Your task to perform on an android device: Search for seafood restaurants on Google Maps Image 0: 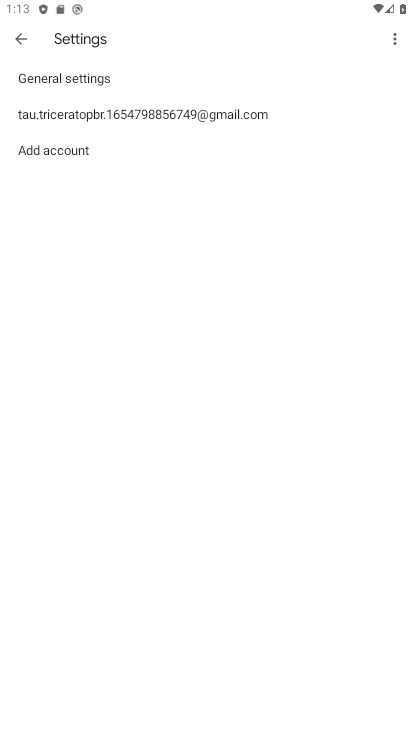
Step 0: press home button
Your task to perform on an android device: Search for seafood restaurants on Google Maps Image 1: 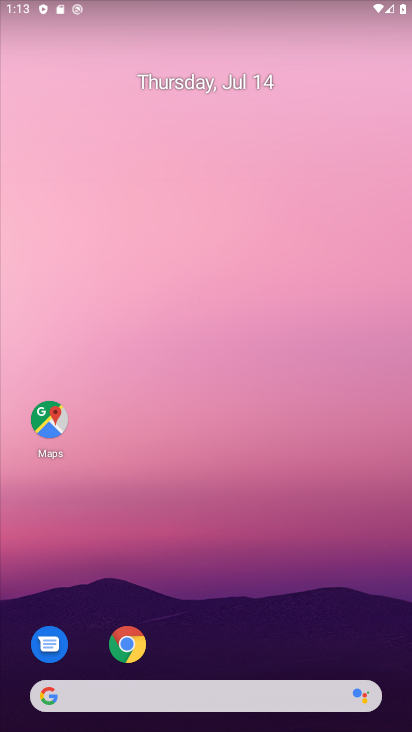
Step 1: drag from (206, 691) to (297, 207)
Your task to perform on an android device: Search for seafood restaurants on Google Maps Image 2: 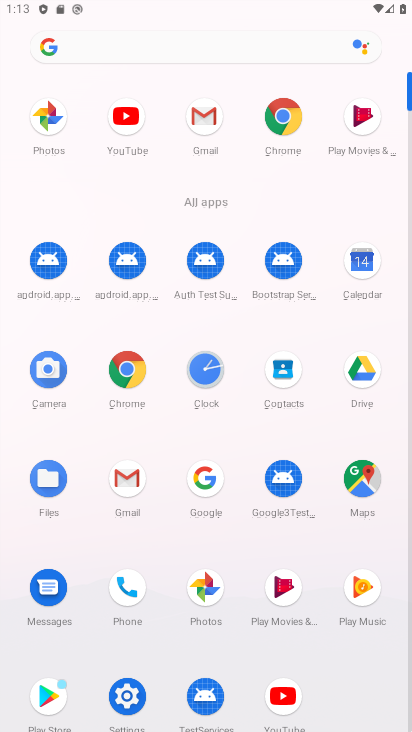
Step 2: click (359, 482)
Your task to perform on an android device: Search for seafood restaurants on Google Maps Image 3: 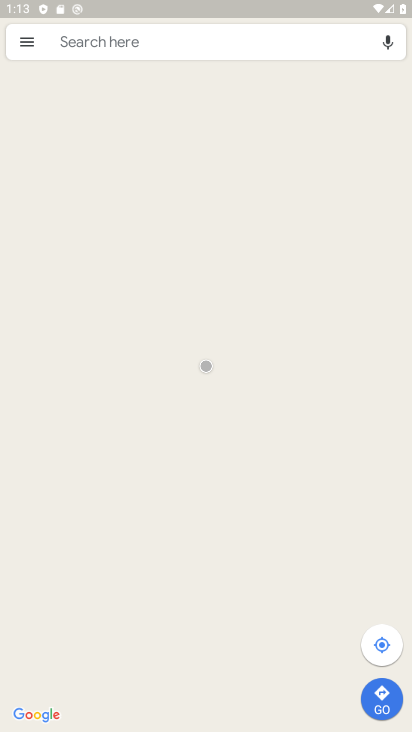
Step 3: click (151, 47)
Your task to perform on an android device: Search for seafood restaurants on Google Maps Image 4: 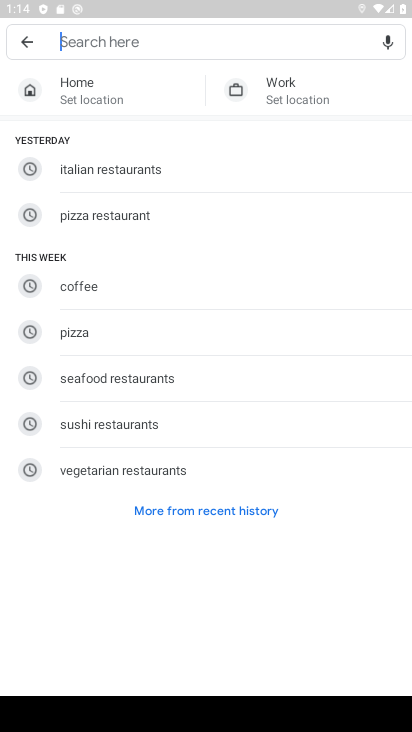
Step 4: type "seafood restaurants"
Your task to perform on an android device: Search for seafood restaurants on Google Maps Image 5: 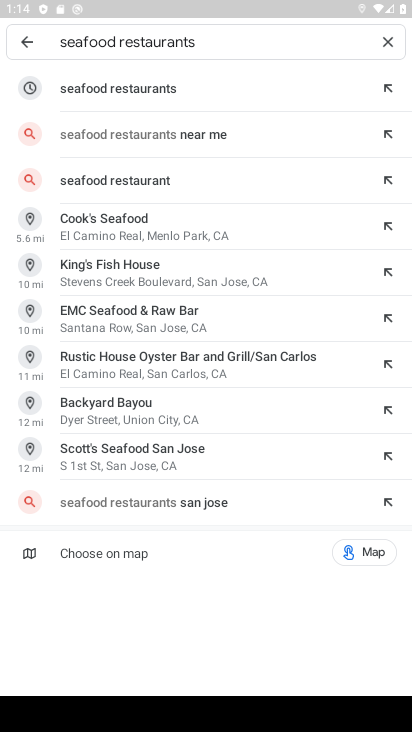
Step 5: click (191, 95)
Your task to perform on an android device: Search for seafood restaurants on Google Maps Image 6: 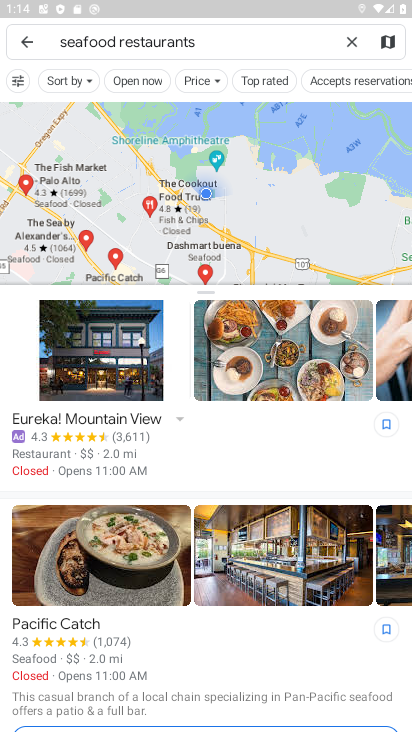
Step 6: task complete